Your task to perform on an android device: empty trash in the gmail app Image 0: 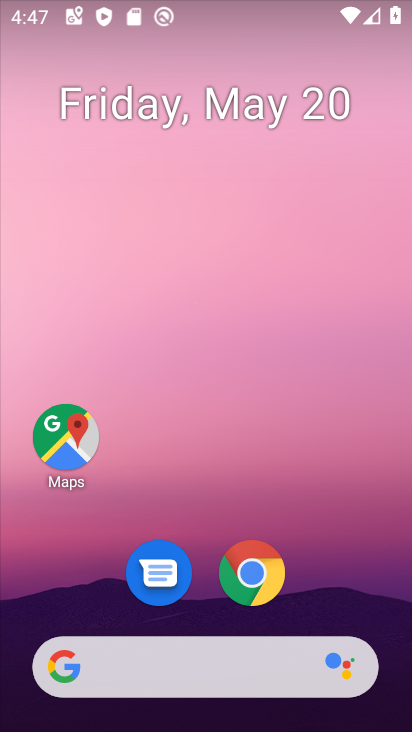
Step 0: drag from (396, 631) to (315, 54)
Your task to perform on an android device: empty trash in the gmail app Image 1: 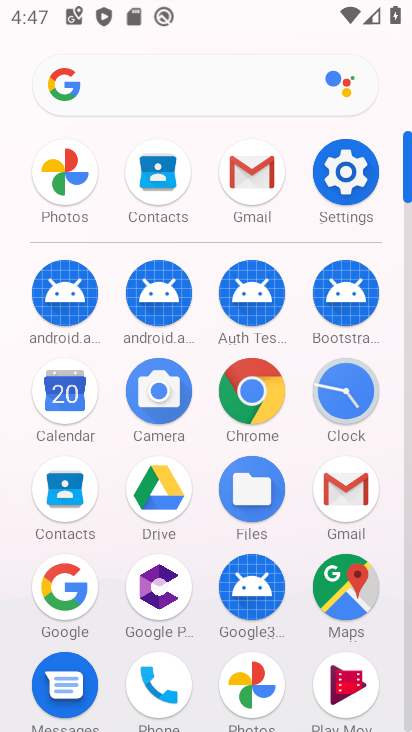
Step 1: click (408, 696)
Your task to perform on an android device: empty trash in the gmail app Image 2: 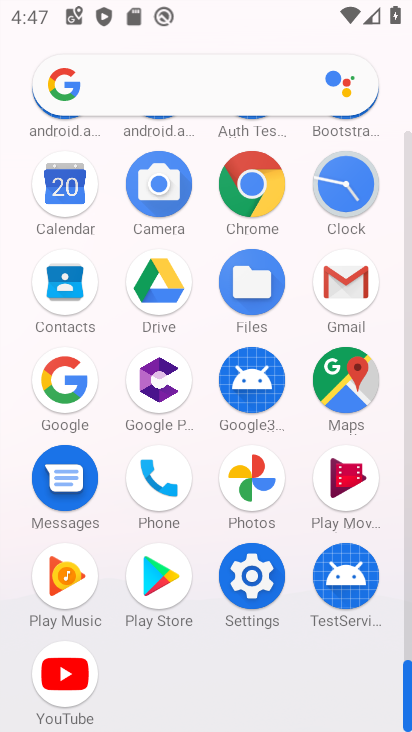
Step 2: click (343, 285)
Your task to perform on an android device: empty trash in the gmail app Image 3: 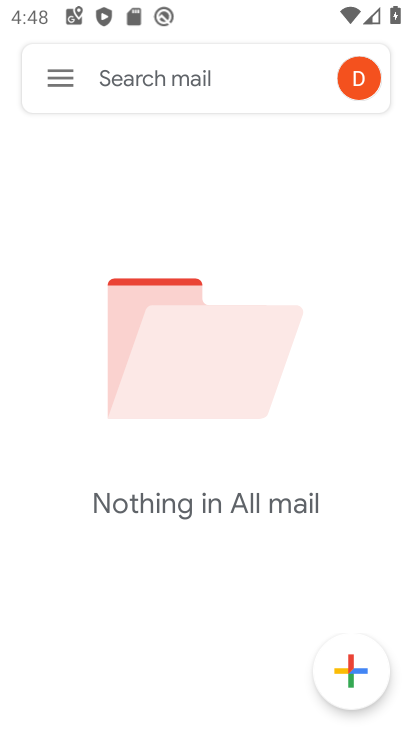
Step 3: click (57, 75)
Your task to perform on an android device: empty trash in the gmail app Image 4: 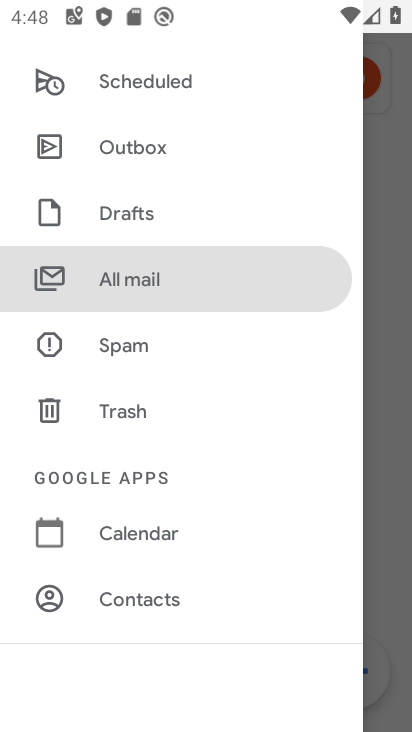
Step 4: click (129, 406)
Your task to perform on an android device: empty trash in the gmail app Image 5: 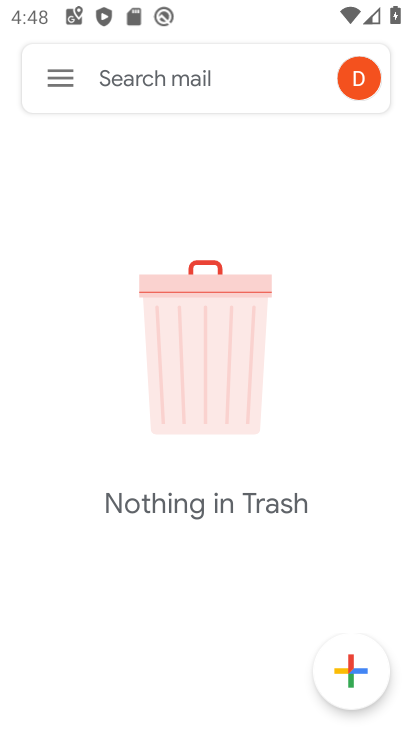
Step 5: task complete